Your task to perform on an android device: allow cookies in the chrome app Image 0: 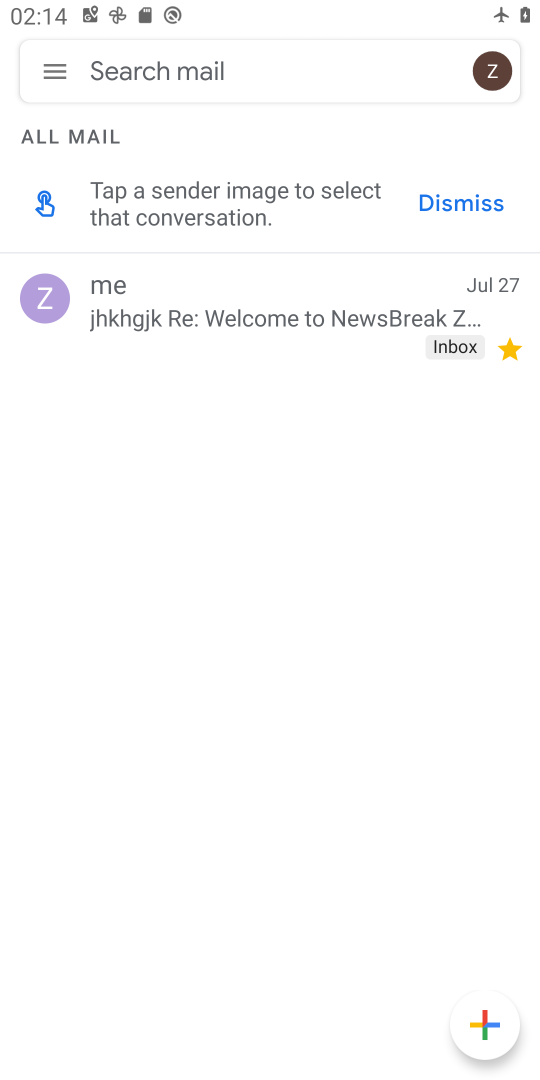
Step 0: press home button
Your task to perform on an android device: allow cookies in the chrome app Image 1: 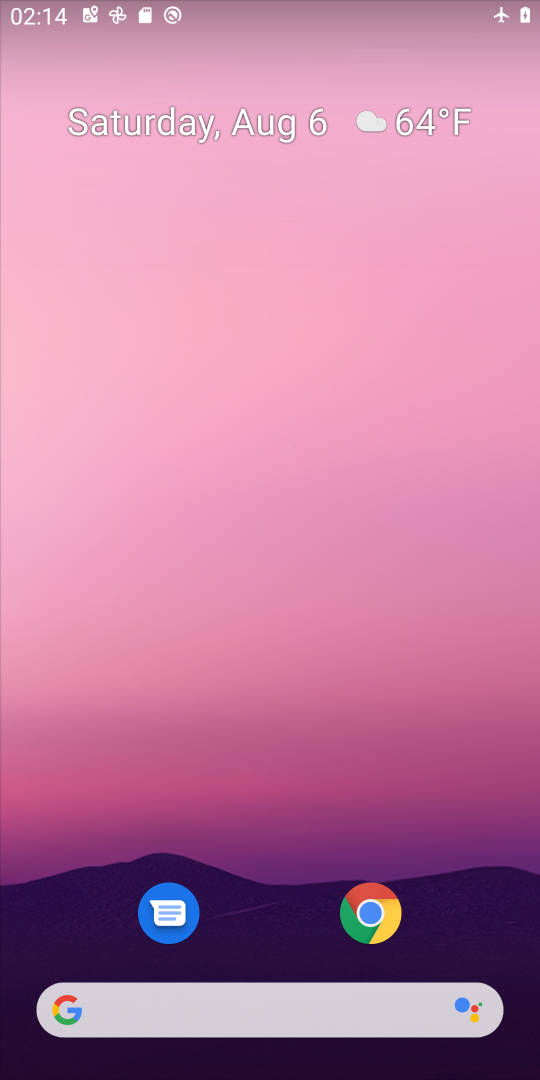
Step 1: drag from (457, 911) to (479, 390)
Your task to perform on an android device: allow cookies in the chrome app Image 2: 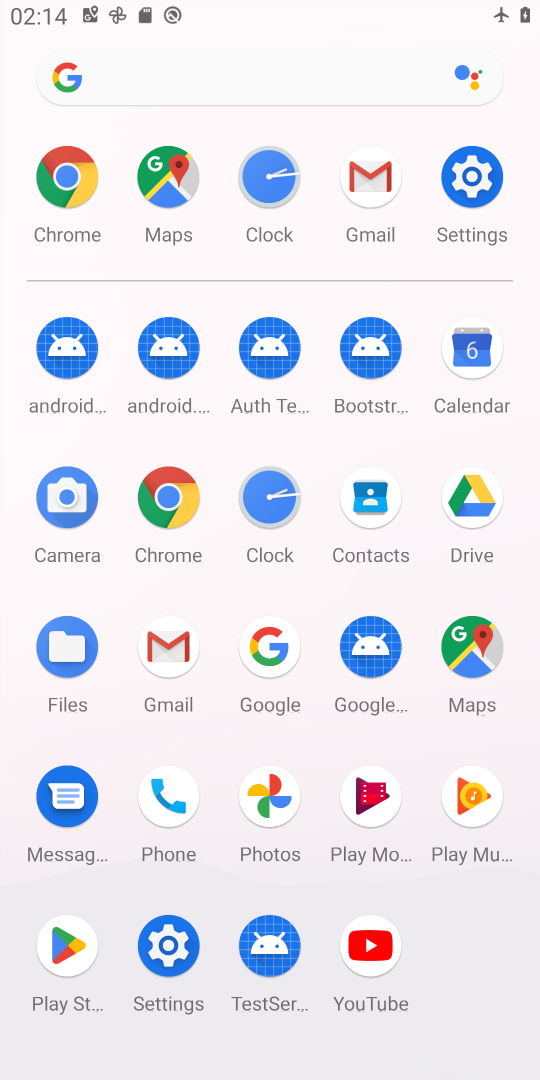
Step 2: click (170, 496)
Your task to perform on an android device: allow cookies in the chrome app Image 3: 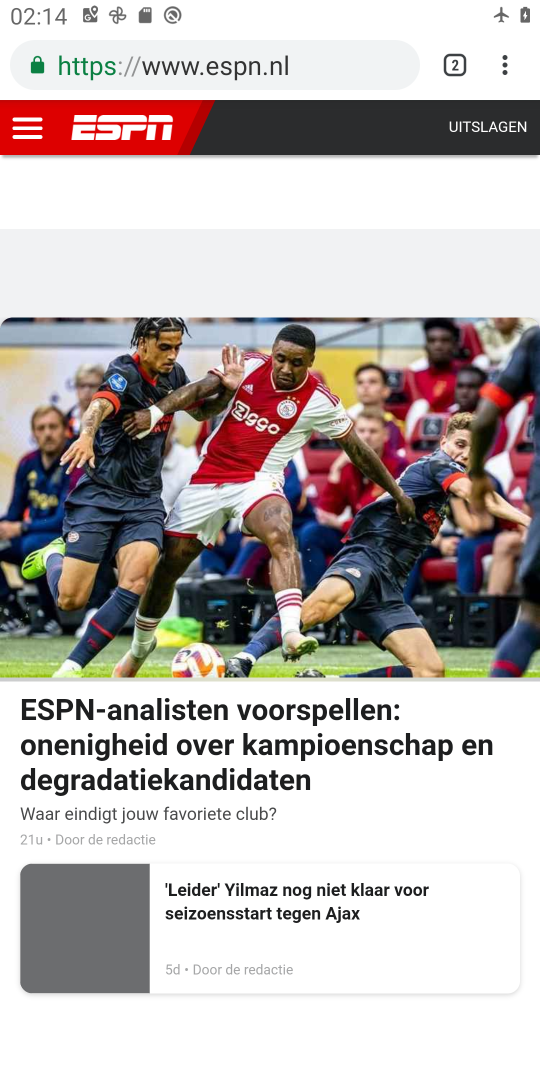
Step 3: click (505, 72)
Your task to perform on an android device: allow cookies in the chrome app Image 4: 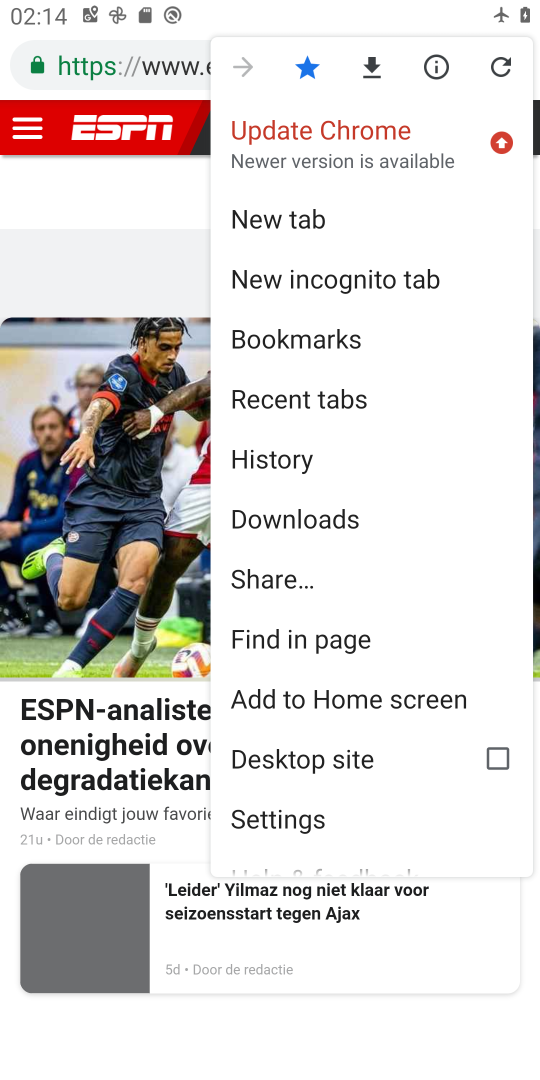
Step 4: click (309, 823)
Your task to perform on an android device: allow cookies in the chrome app Image 5: 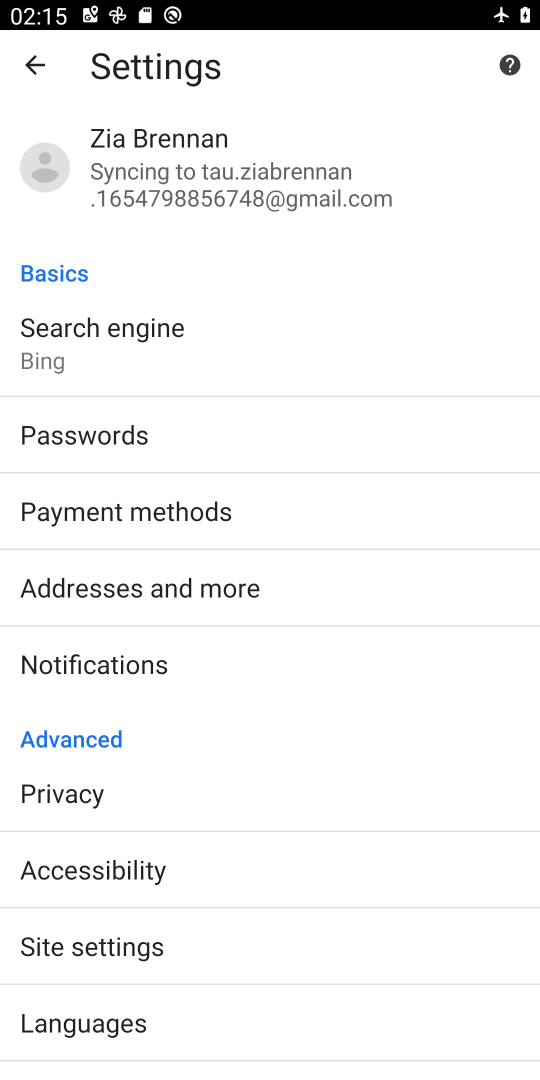
Step 5: click (258, 946)
Your task to perform on an android device: allow cookies in the chrome app Image 6: 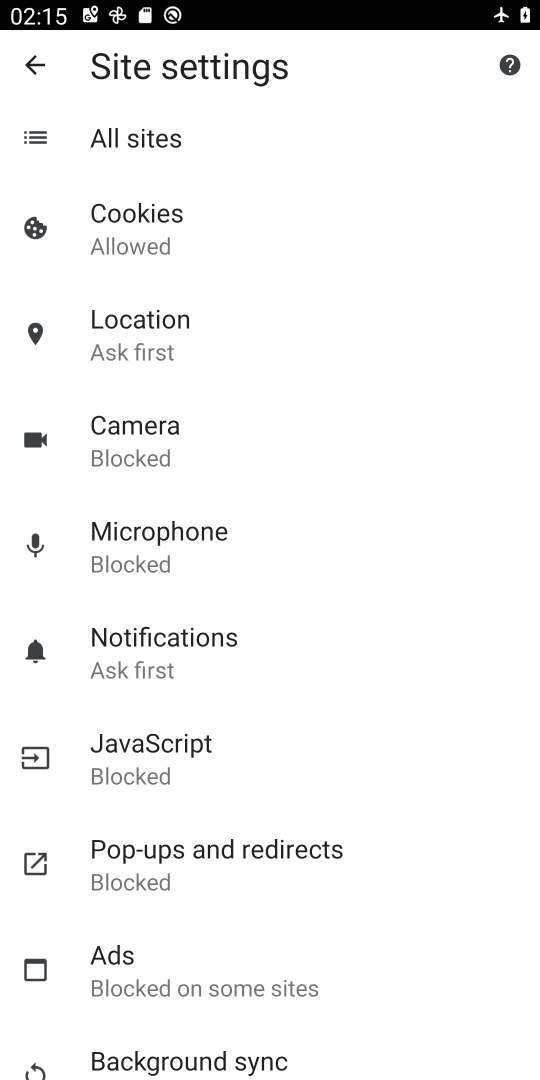
Step 6: click (184, 231)
Your task to perform on an android device: allow cookies in the chrome app Image 7: 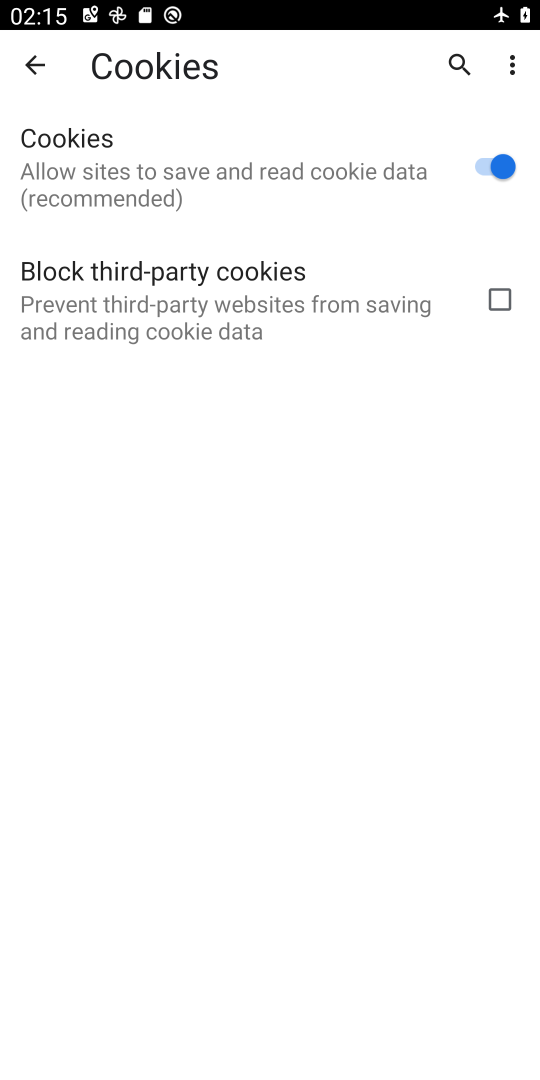
Step 7: task complete